Your task to perform on an android device: Open settings on Google Maps Image 0: 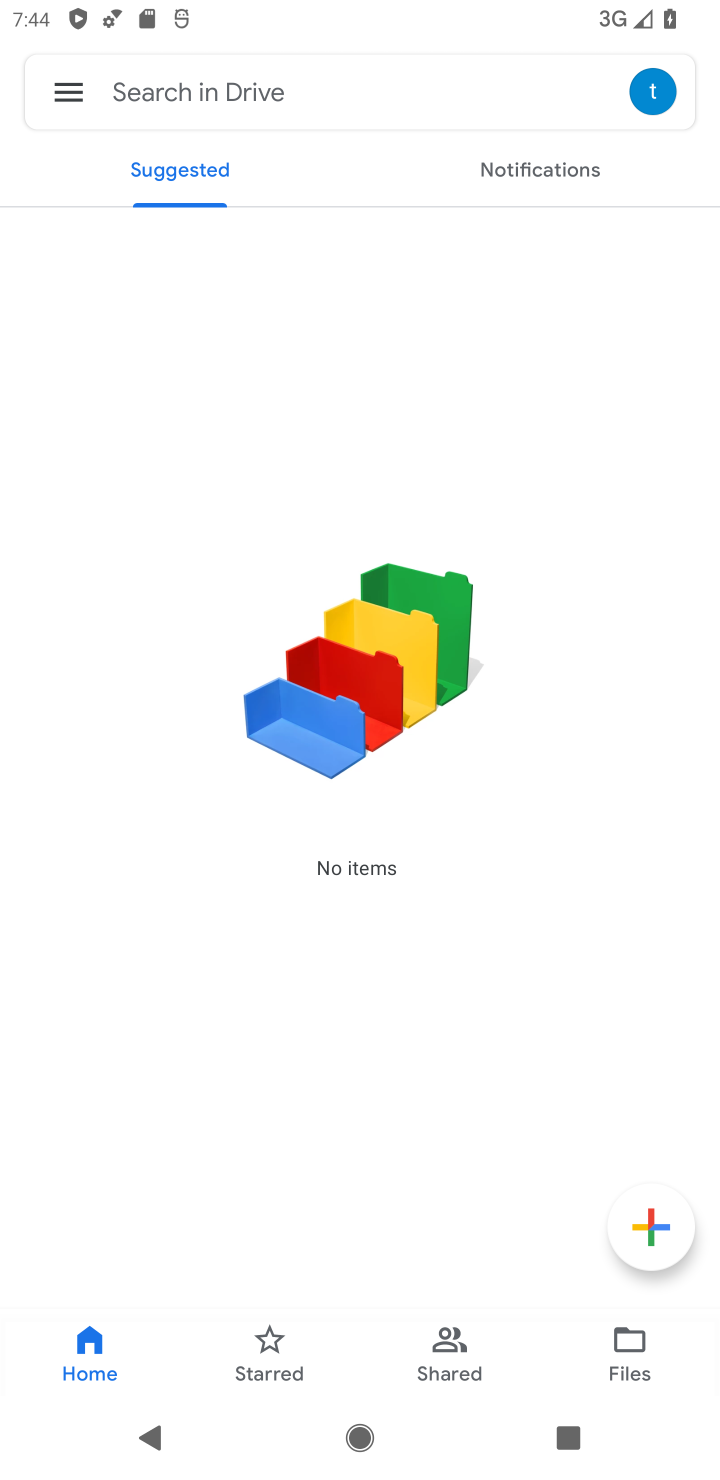
Step 0: press home button
Your task to perform on an android device: Open settings on Google Maps Image 1: 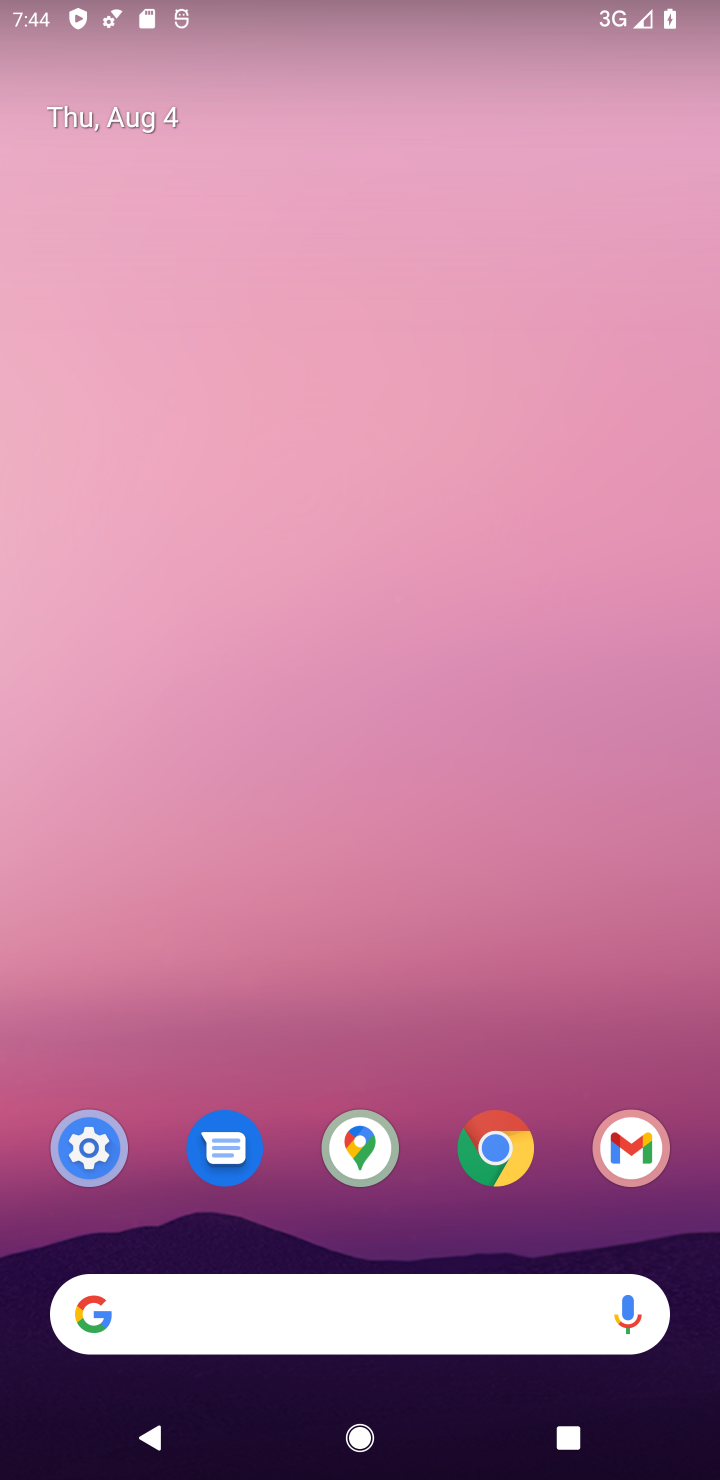
Step 1: click (354, 1169)
Your task to perform on an android device: Open settings on Google Maps Image 2: 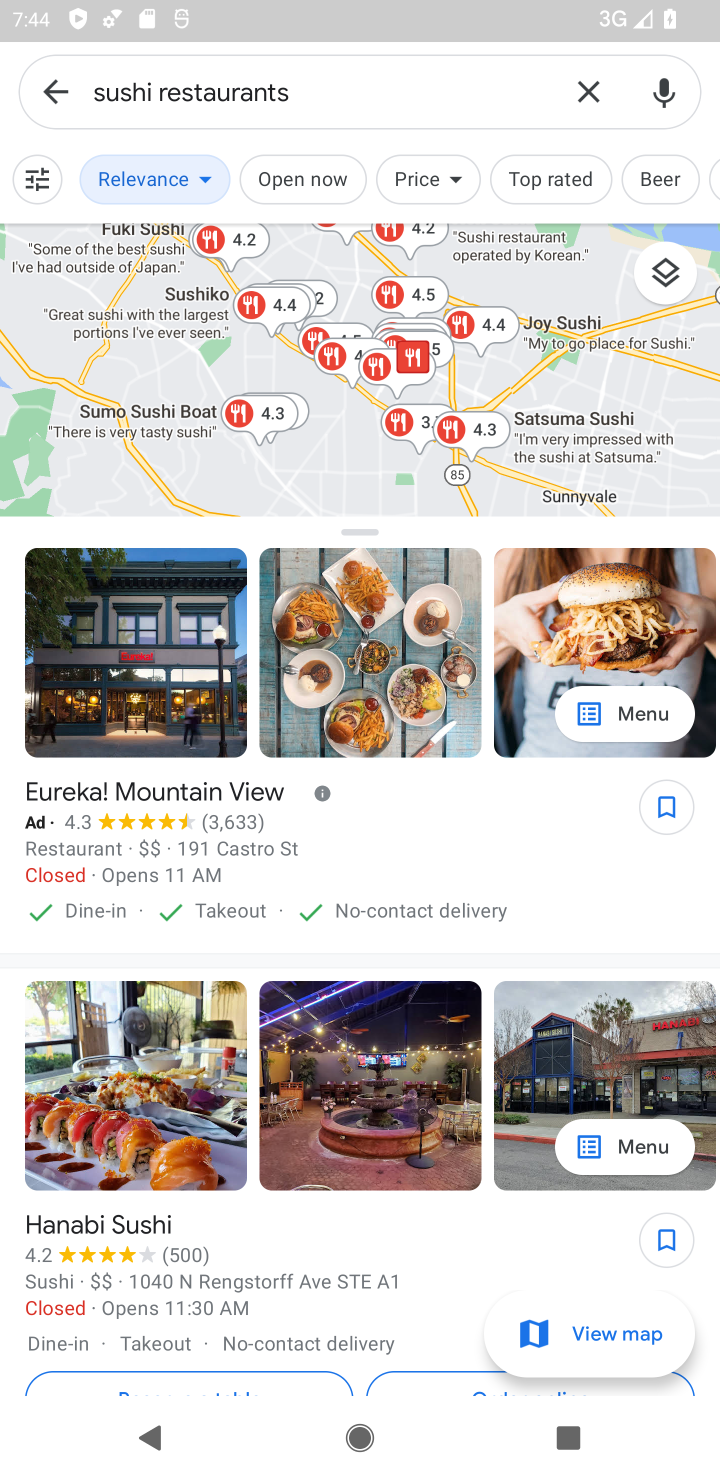
Step 2: click (49, 89)
Your task to perform on an android device: Open settings on Google Maps Image 3: 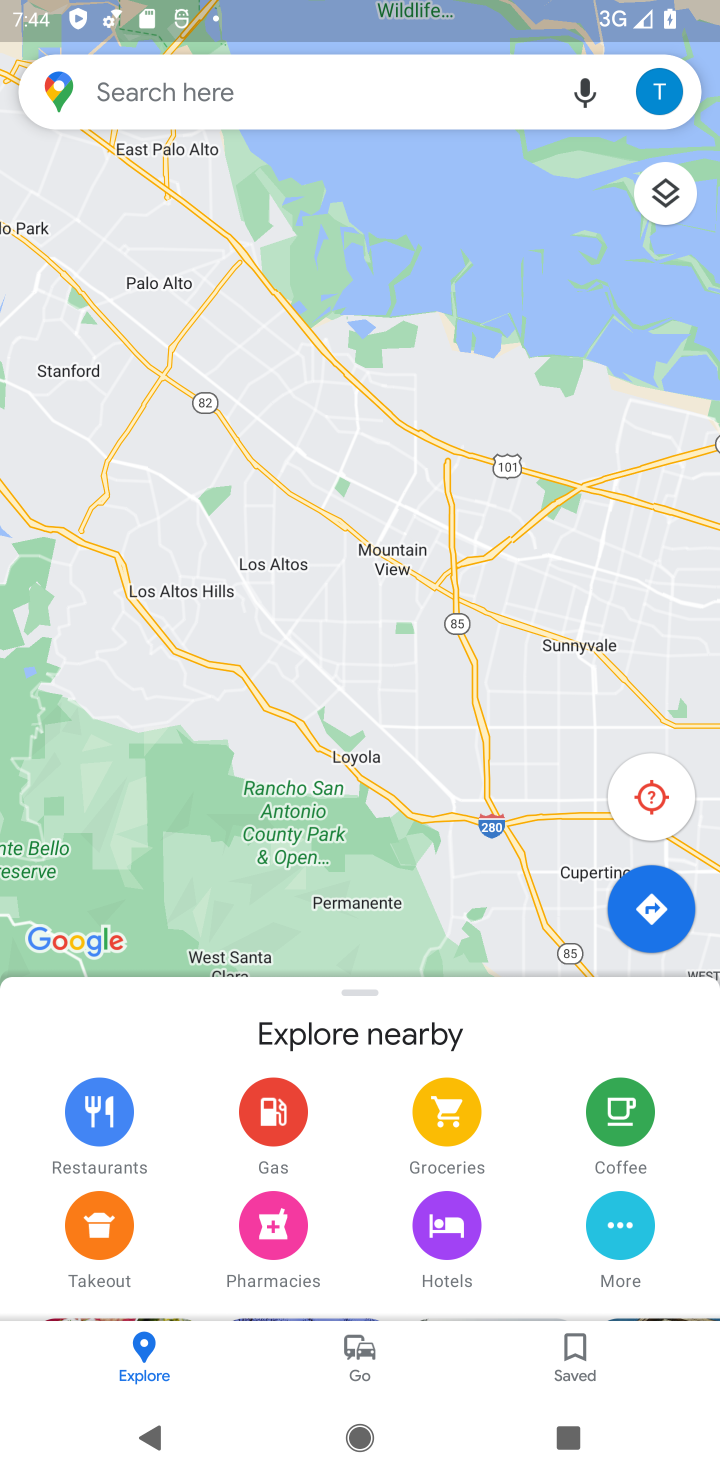
Step 3: click (657, 98)
Your task to perform on an android device: Open settings on Google Maps Image 4: 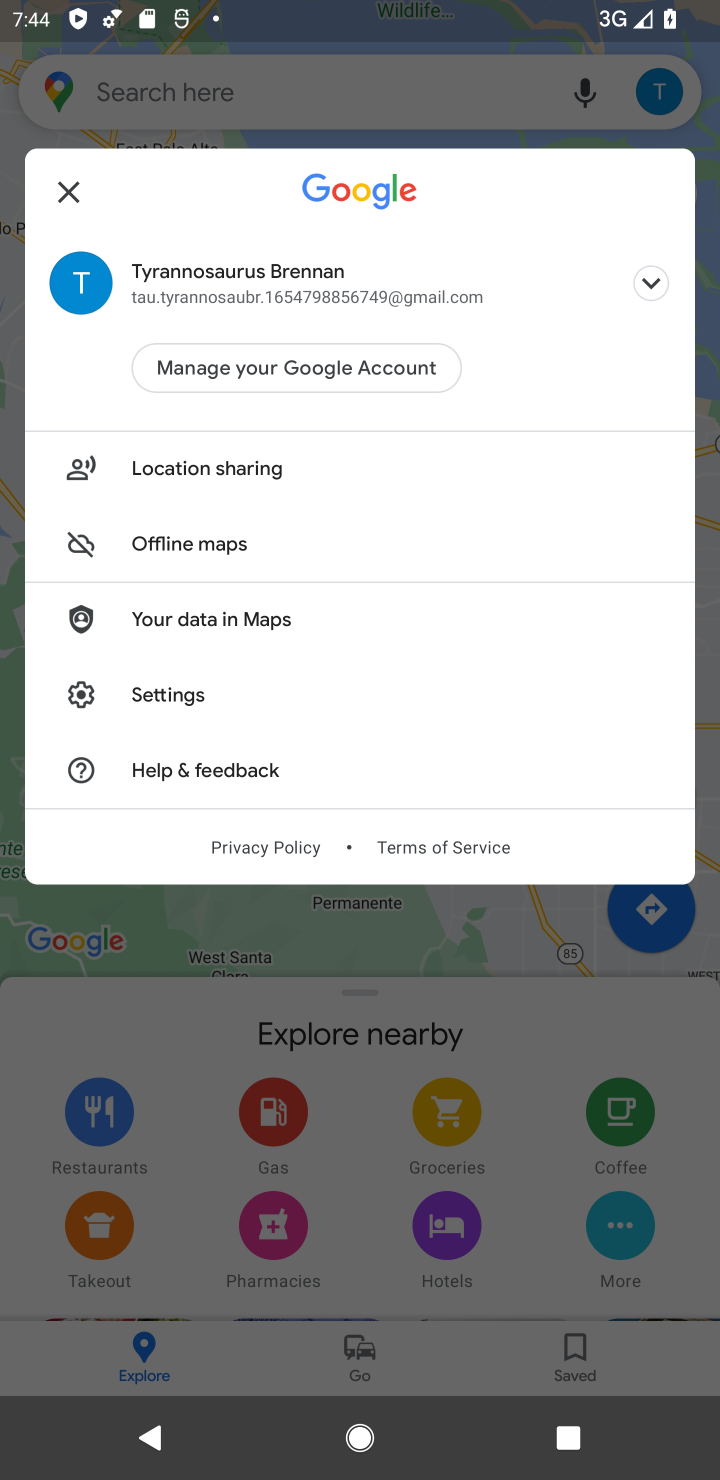
Step 4: click (256, 689)
Your task to perform on an android device: Open settings on Google Maps Image 5: 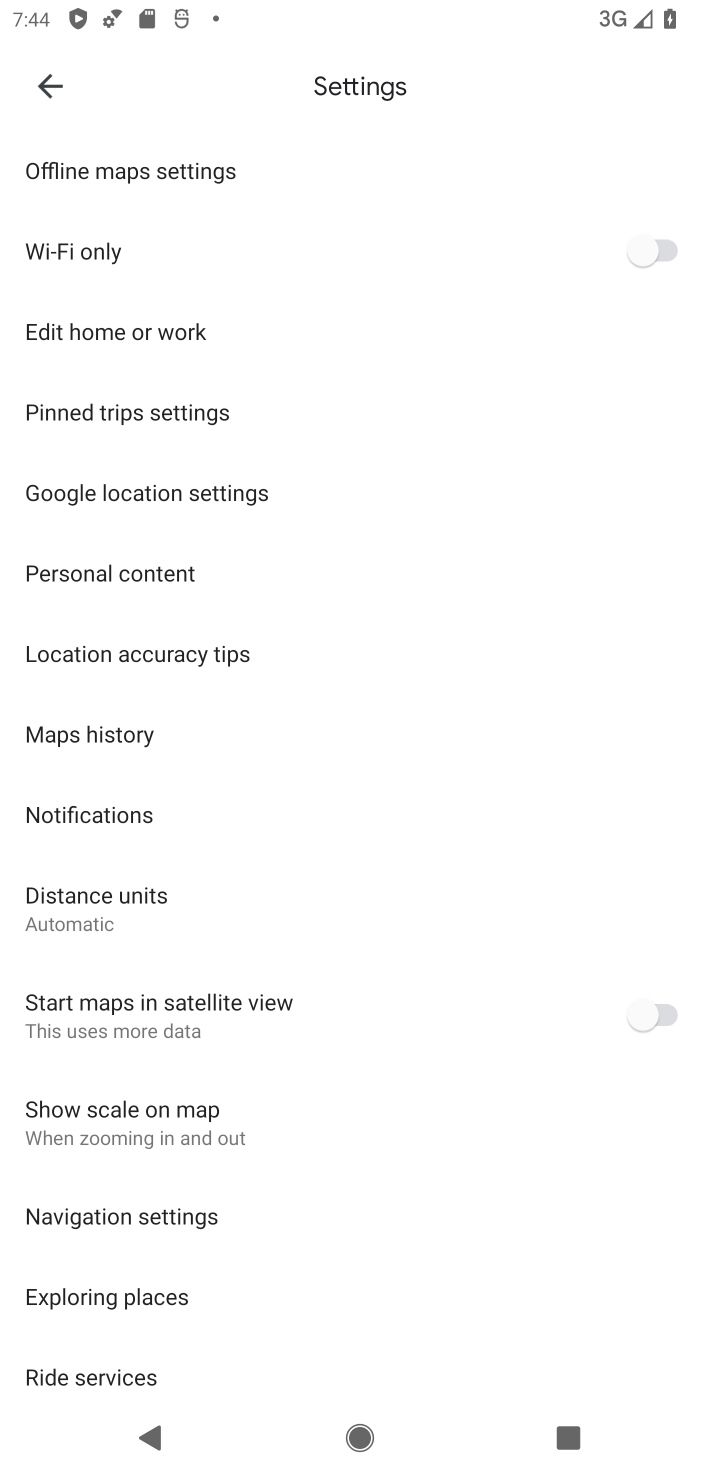
Step 5: task complete